Your task to perform on an android device: find which apps use the phone's location Image 0: 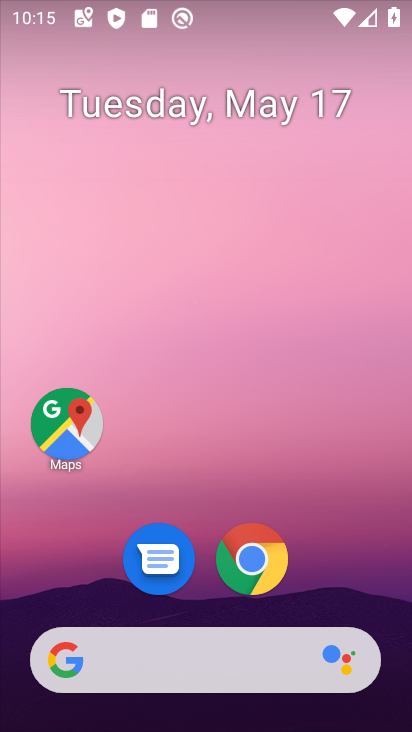
Step 0: drag from (218, 630) to (208, 58)
Your task to perform on an android device: find which apps use the phone's location Image 1: 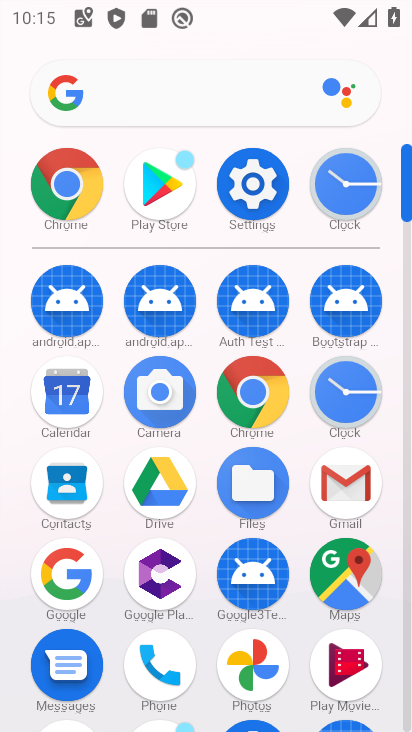
Step 1: click (234, 196)
Your task to perform on an android device: find which apps use the phone's location Image 2: 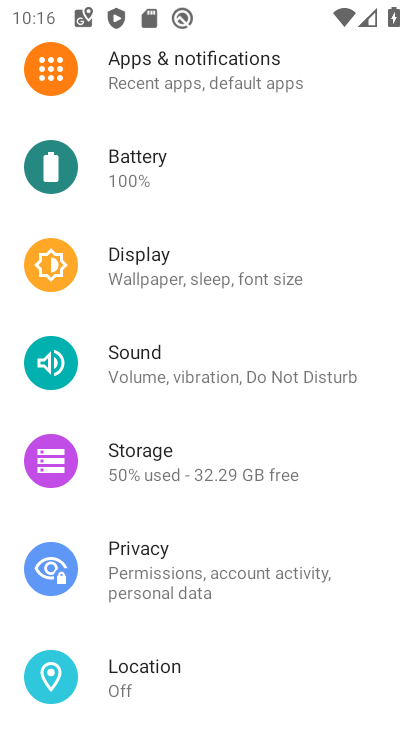
Step 2: click (151, 679)
Your task to perform on an android device: find which apps use the phone's location Image 3: 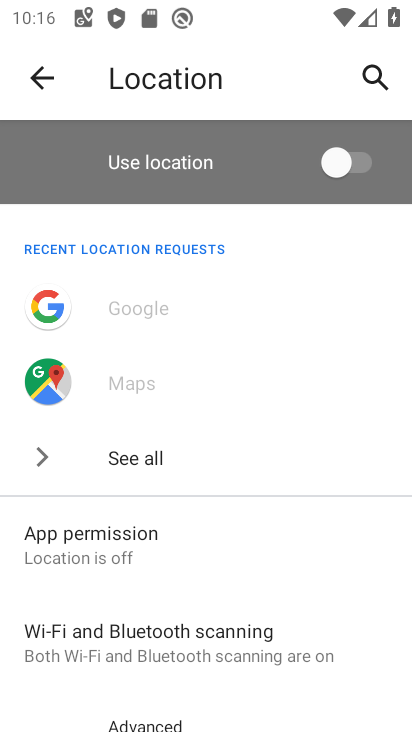
Step 3: click (114, 458)
Your task to perform on an android device: find which apps use the phone's location Image 4: 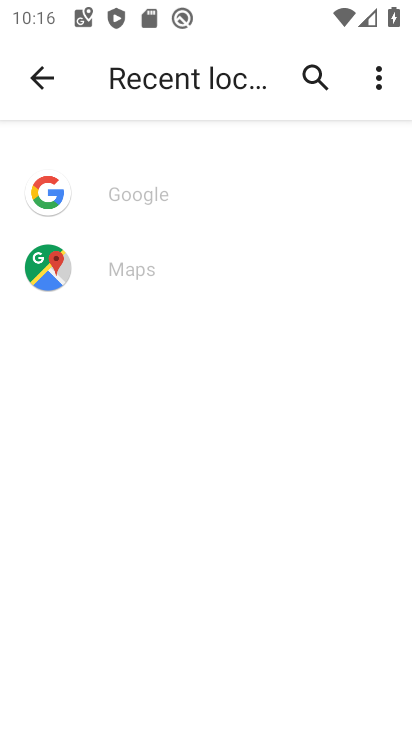
Step 4: task complete